Your task to perform on an android device: turn on javascript in the chrome app Image 0: 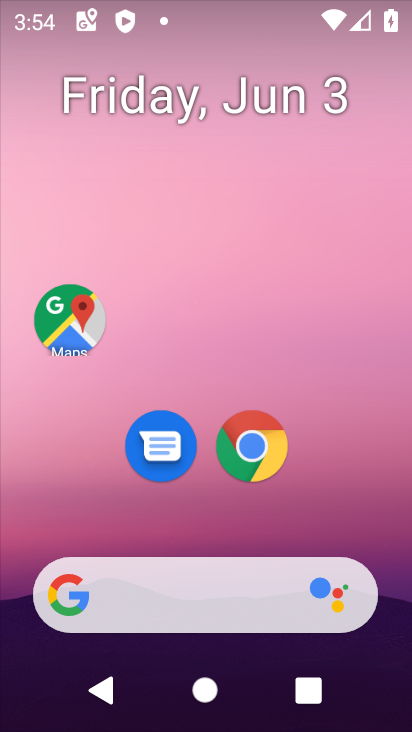
Step 0: task complete